Your task to perform on an android device: Open Google Chrome Image 0: 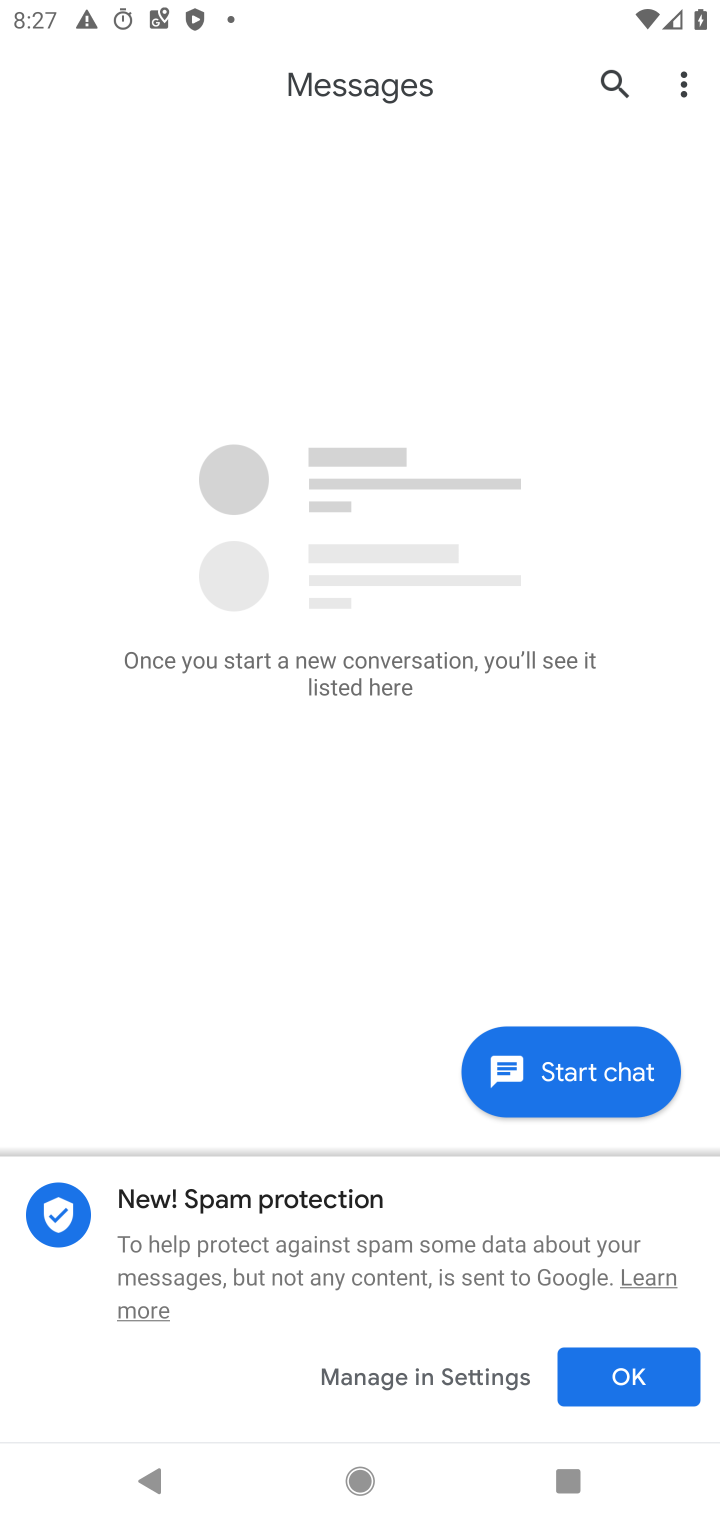
Step 0: press home button
Your task to perform on an android device: Open Google Chrome Image 1: 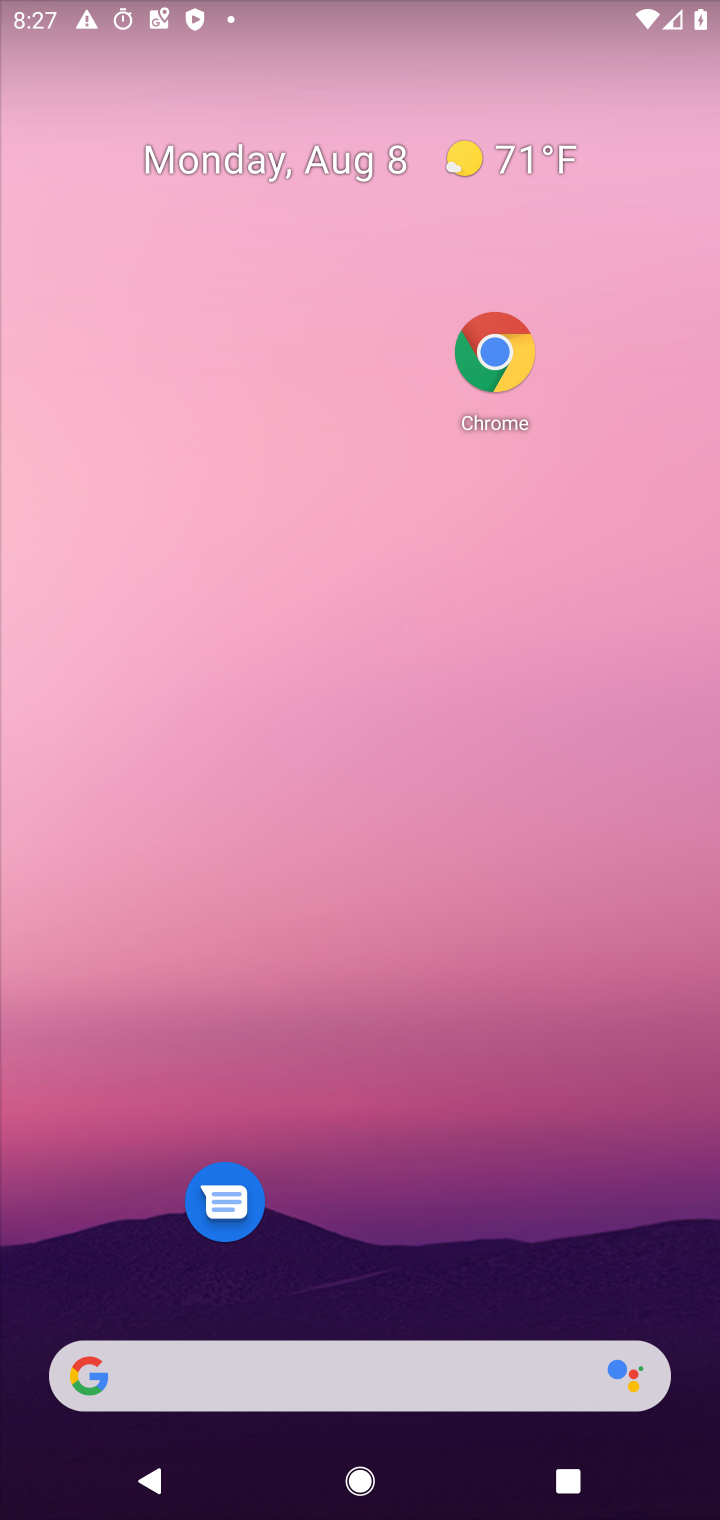
Step 1: drag from (492, 1321) to (394, 16)
Your task to perform on an android device: Open Google Chrome Image 2: 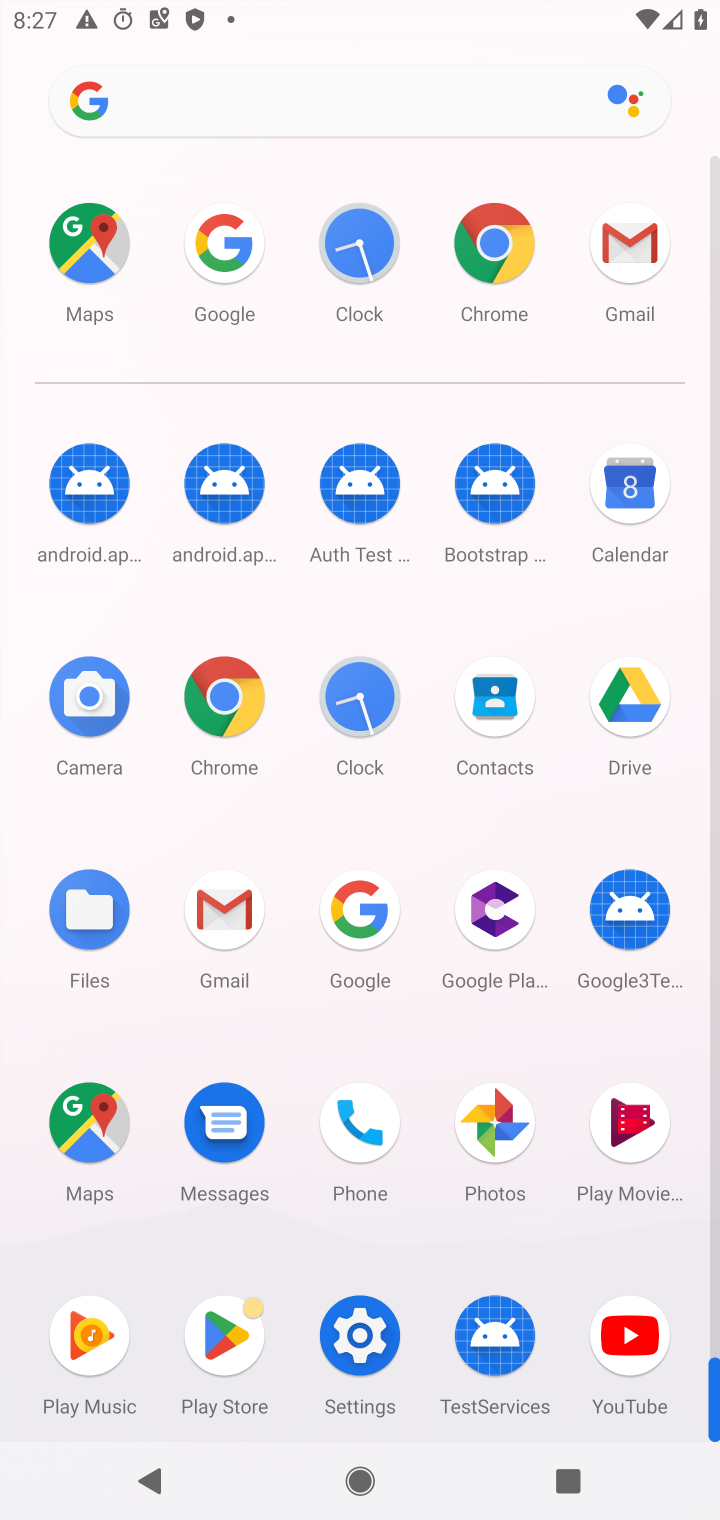
Step 2: click (504, 238)
Your task to perform on an android device: Open Google Chrome Image 3: 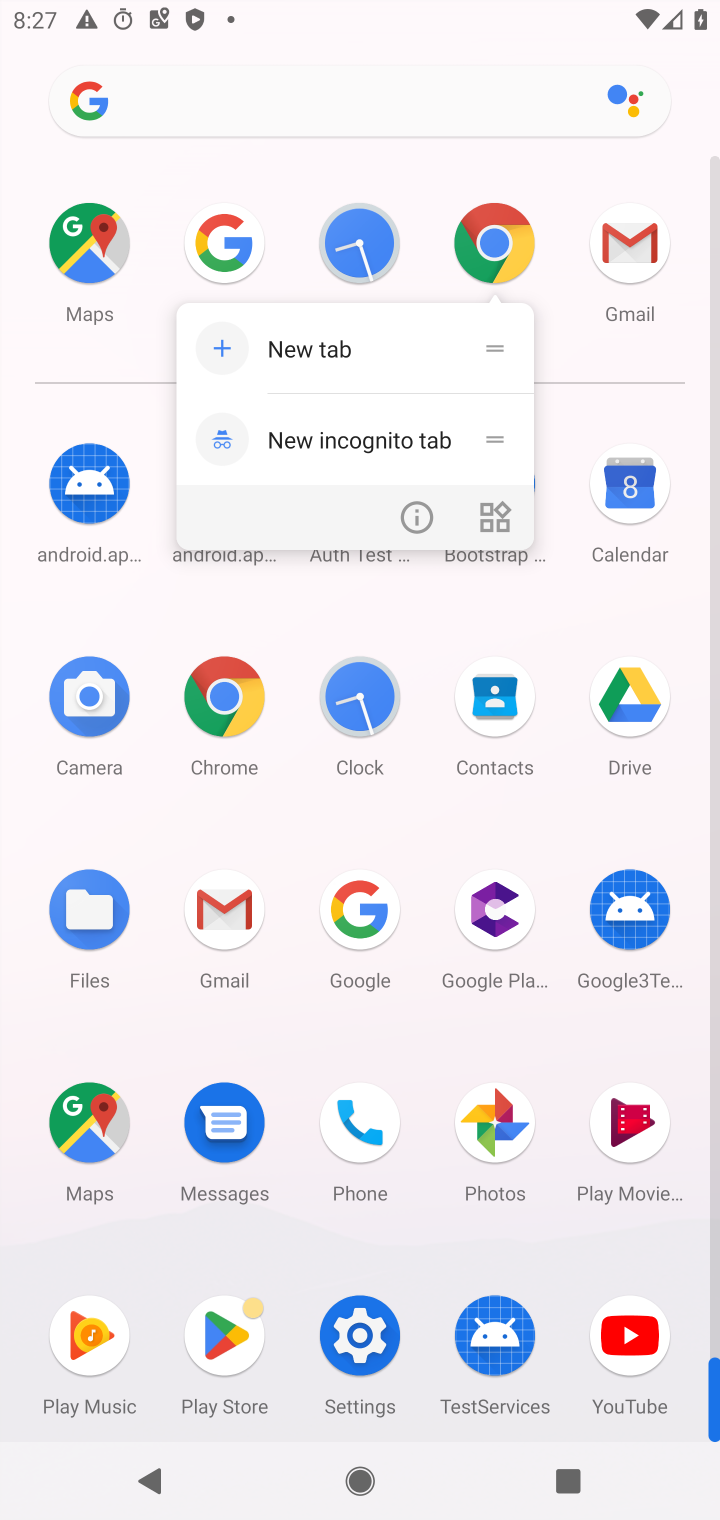
Step 3: click (496, 235)
Your task to perform on an android device: Open Google Chrome Image 4: 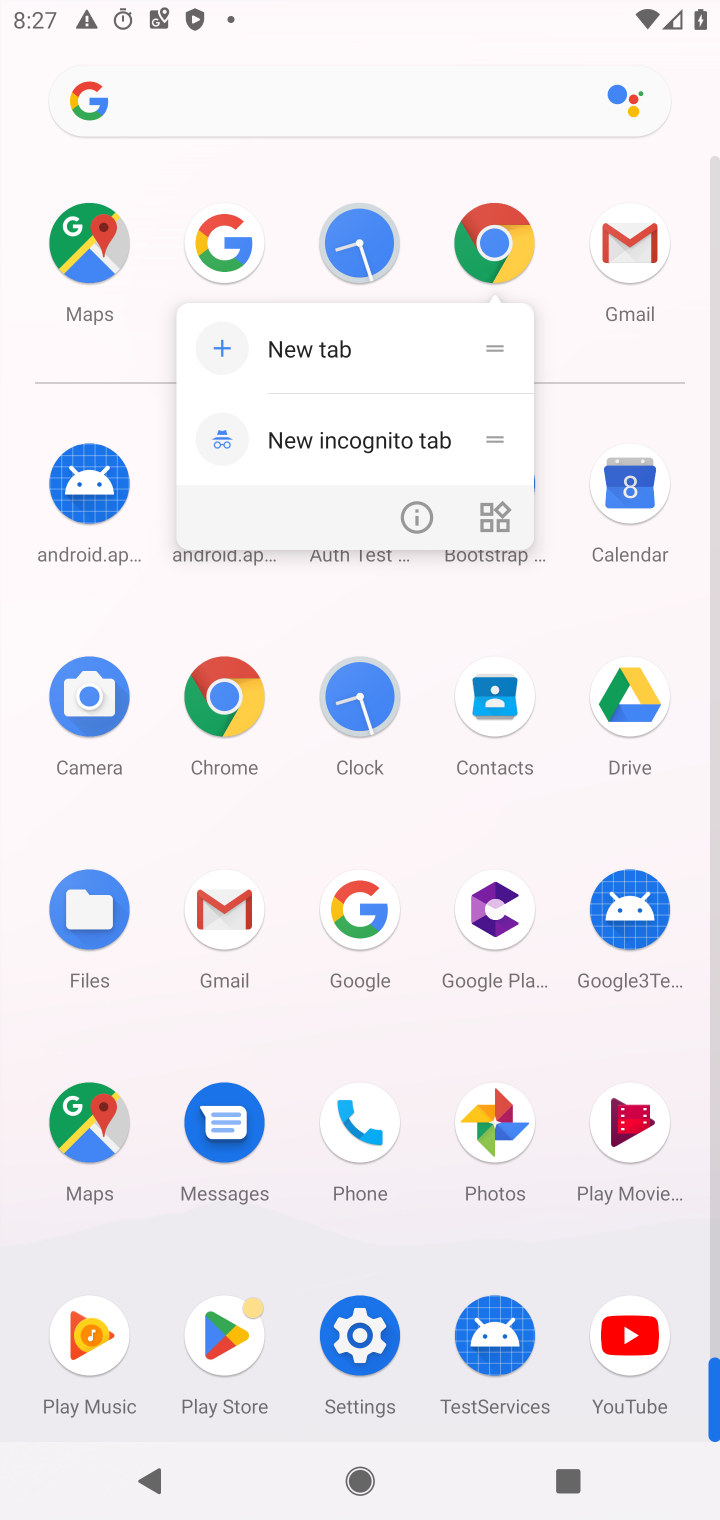
Step 4: click (500, 250)
Your task to perform on an android device: Open Google Chrome Image 5: 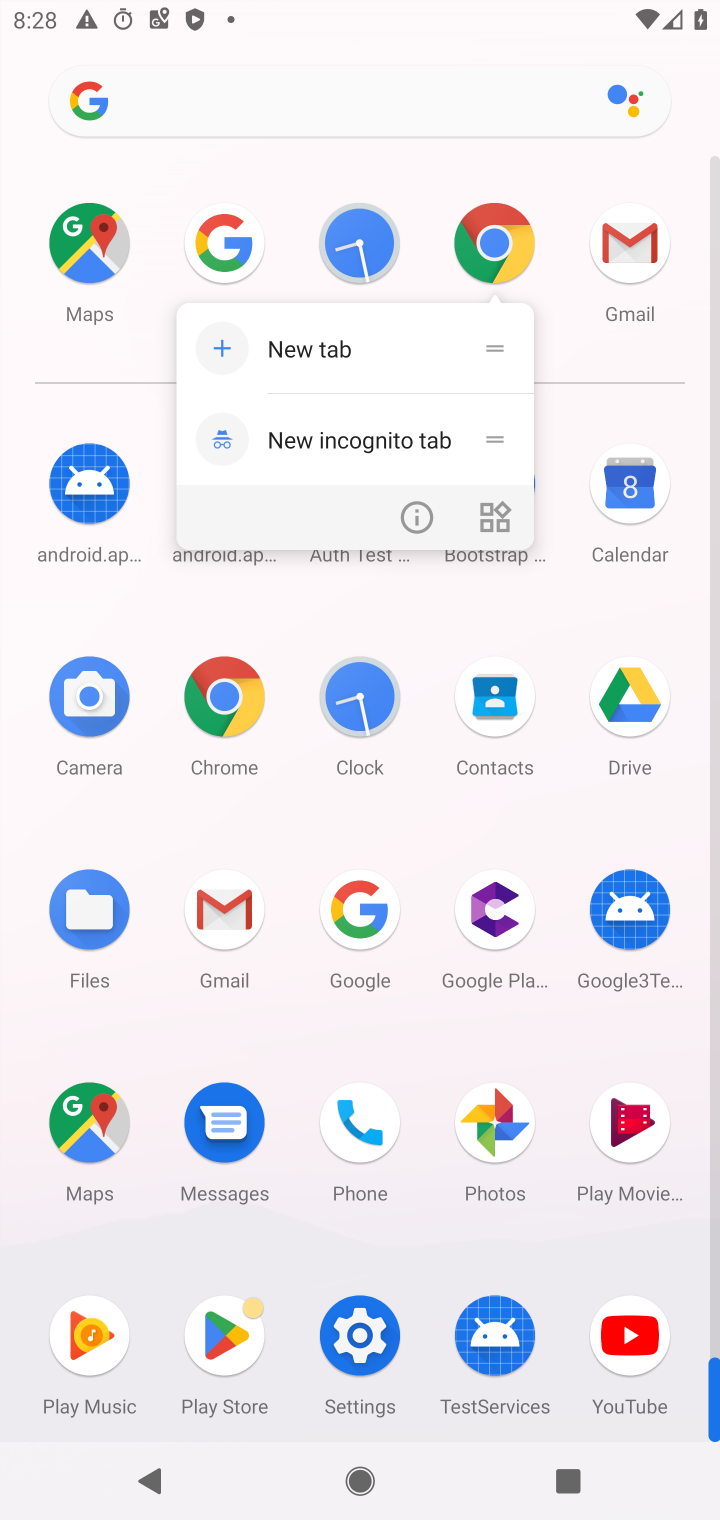
Step 5: click (508, 243)
Your task to perform on an android device: Open Google Chrome Image 6: 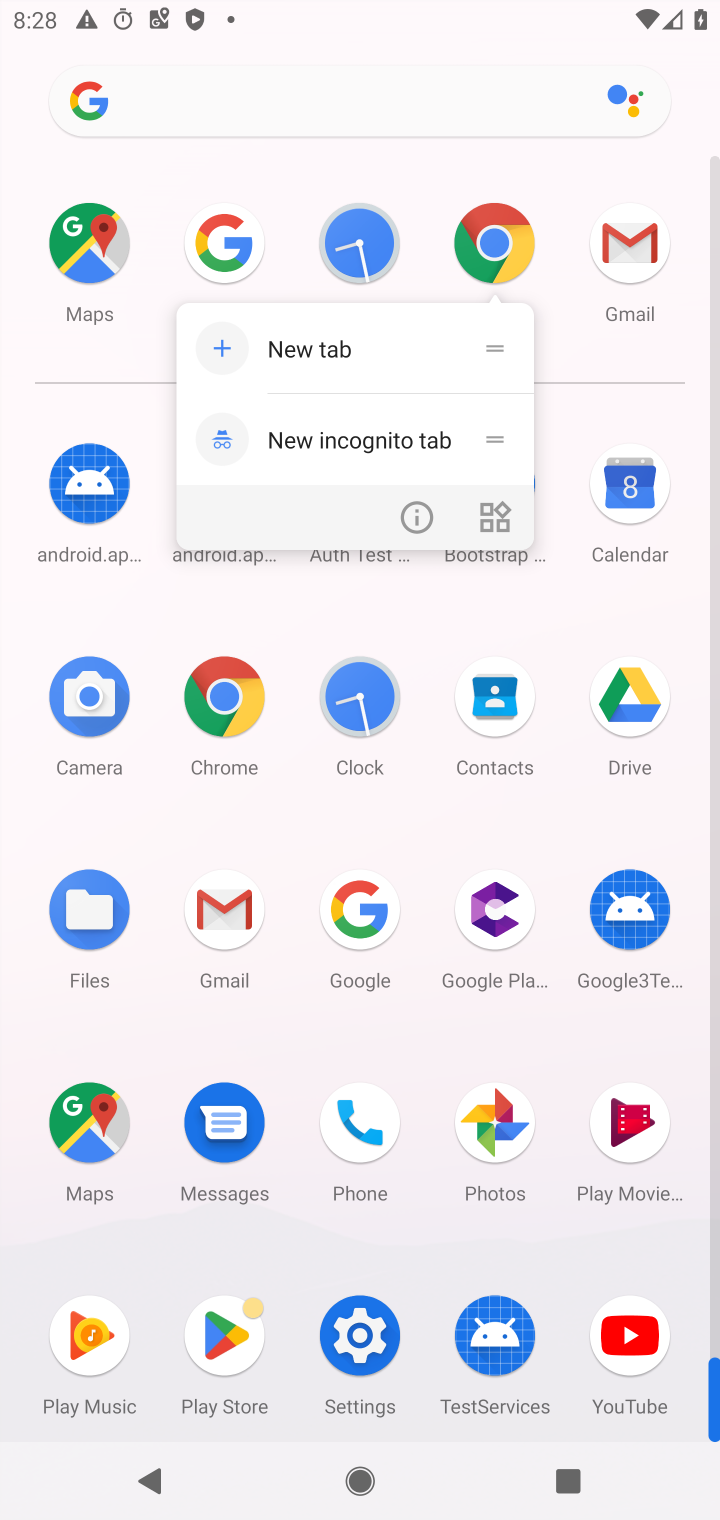
Step 6: click (467, 246)
Your task to perform on an android device: Open Google Chrome Image 7: 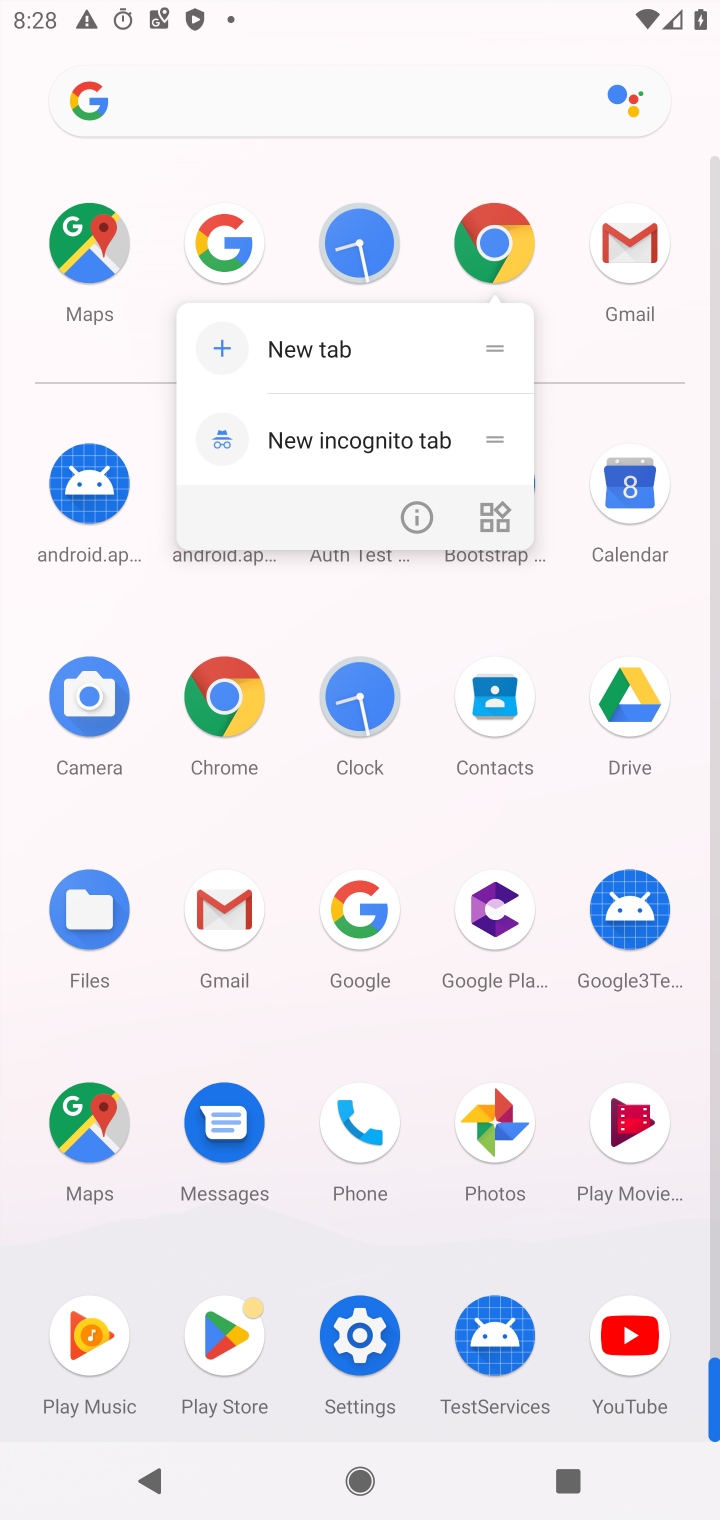
Step 7: task complete